Your task to perform on an android device: Open internet settings Image 0: 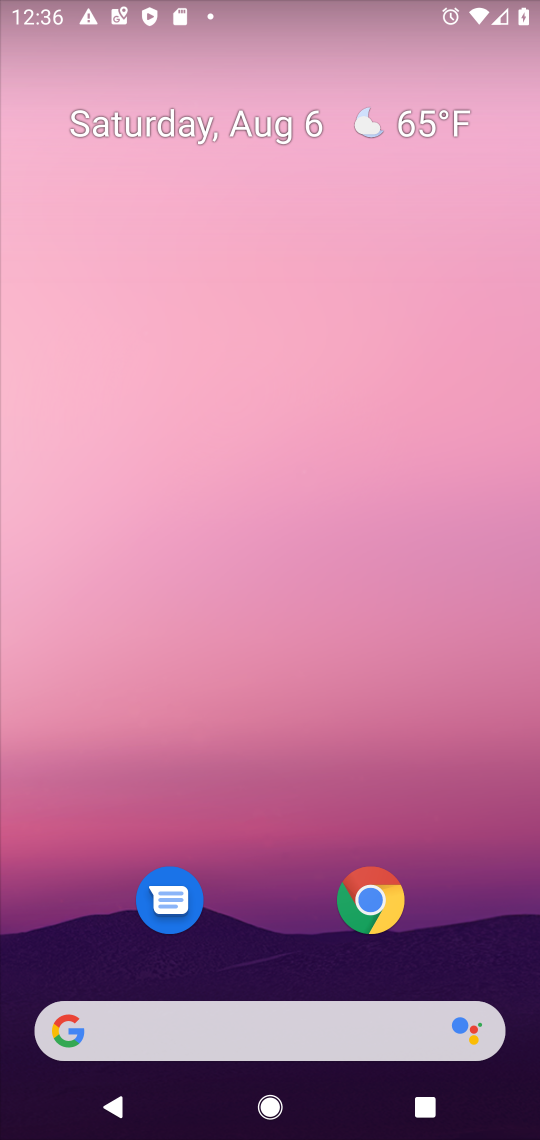
Step 0: drag from (282, 925) to (276, 98)
Your task to perform on an android device: Open internet settings Image 1: 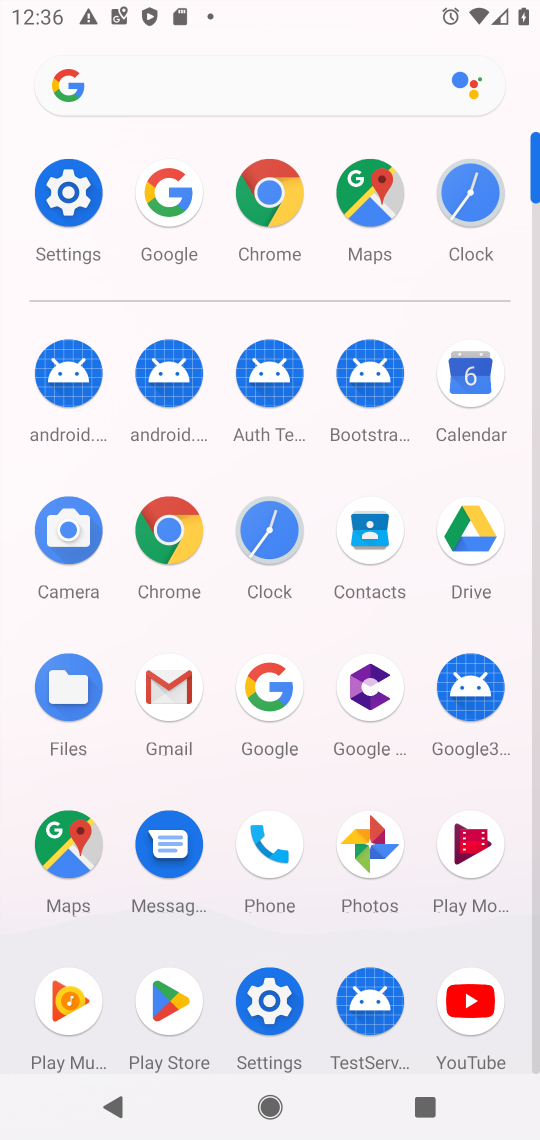
Step 1: click (67, 187)
Your task to perform on an android device: Open internet settings Image 2: 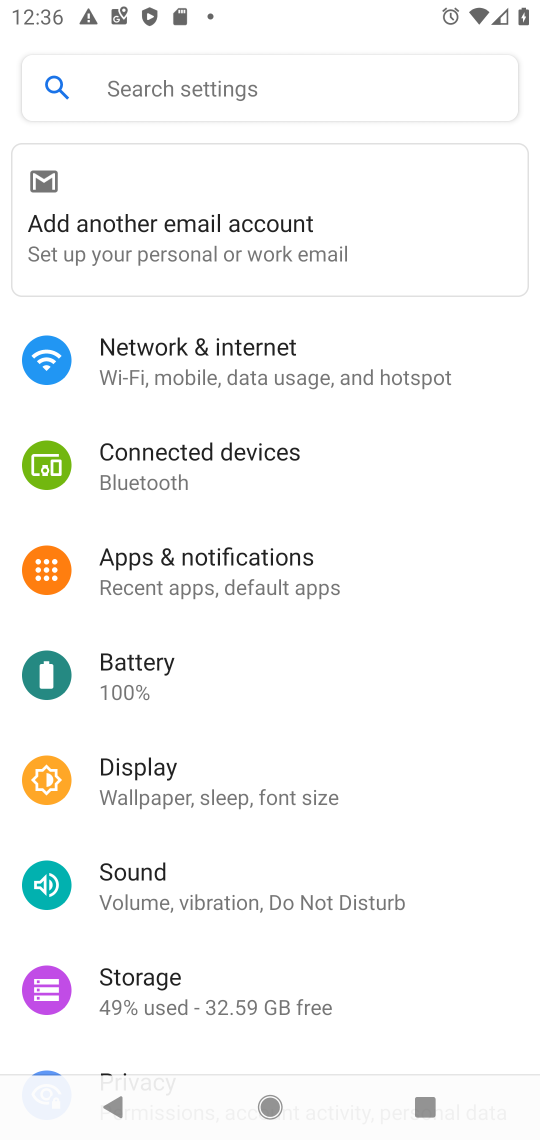
Step 2: click (166, 365)
Your task to perform on an android device: Open internet settings Image 3: 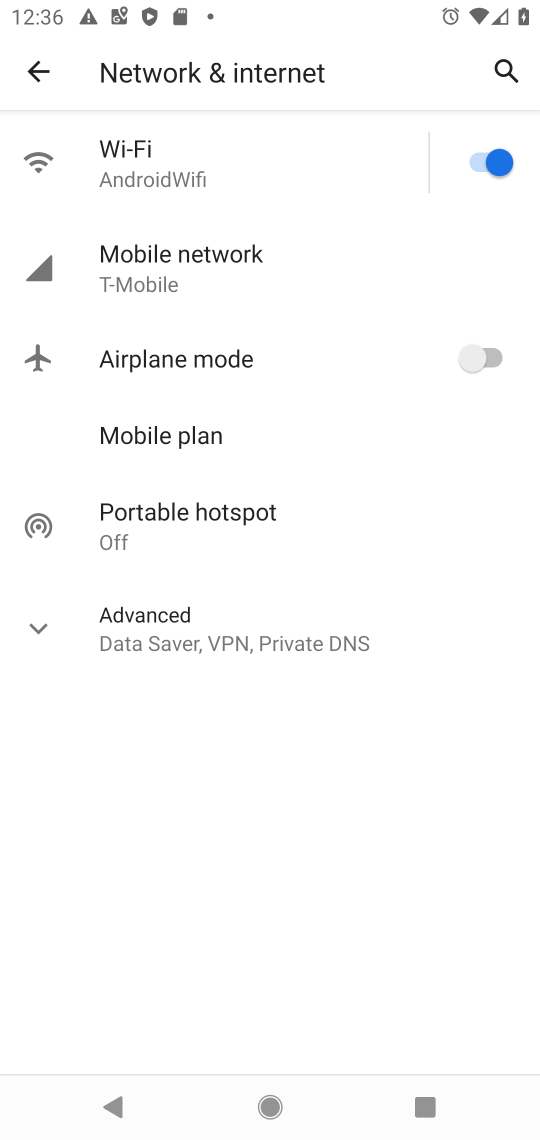
Step 3: task complete